Your task to perform on an android device: turn smart compose on in the gmail app Image 0: 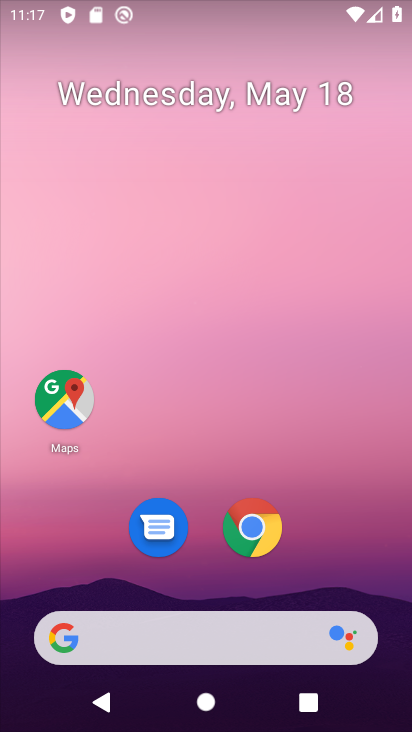
Step 0: drag from (188, 479) to (245, 93)
Your task to perform on an android device: turn smart compose on in the gmail app Image 1: 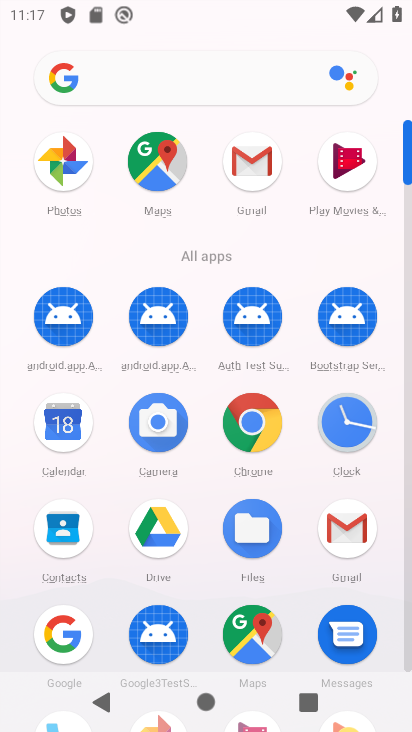
Step 1: click (235, 168)
Your task to perform on an android device: turn smart compose on in the gmail app Image 2: 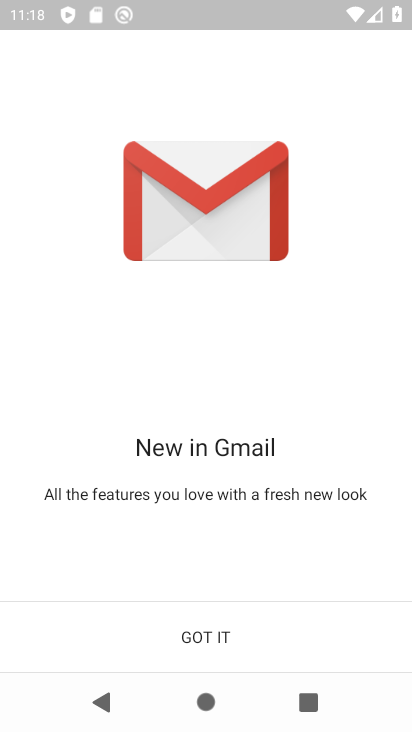
Step 2: click (191, 658)
Your task to perform on an android device: turn smart compose on in the gmail app Image 3: 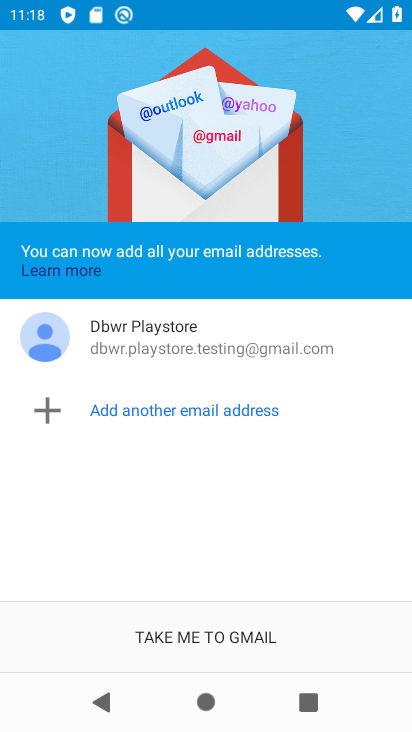
Step 3: click (199, 621)
Your task to perform on an android device: turn smart compose on in the gmail app Image 4: 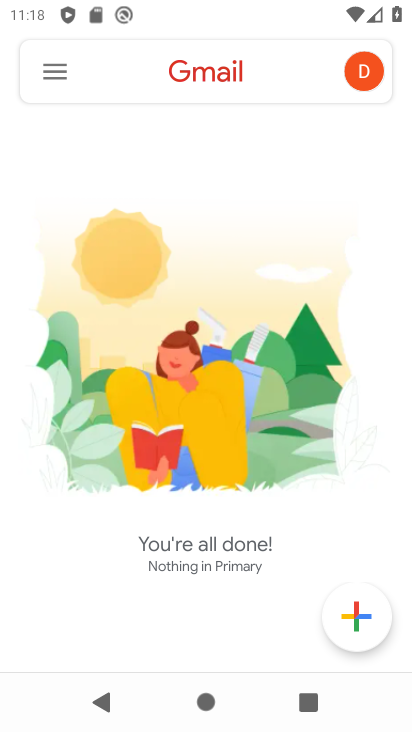
Step 4: click (46, 71)
Your task to perform on an android device: turn smart compose on in the gmail app Image 5: 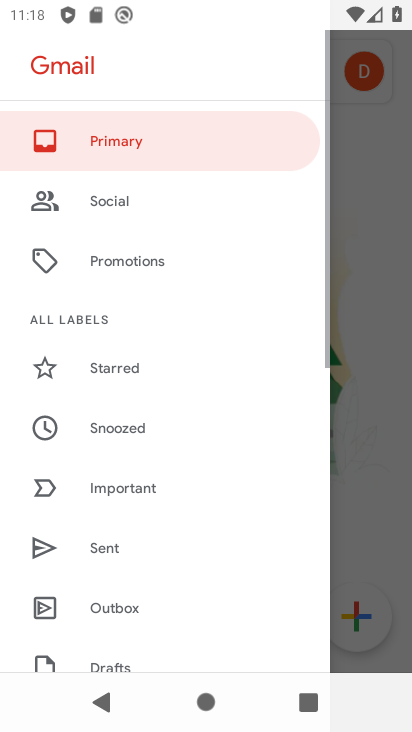
Step 5: drag from (131, 602) to (283, 56)
Your task to perform on an android device: turn smart compose on in the gmail app Image 6: 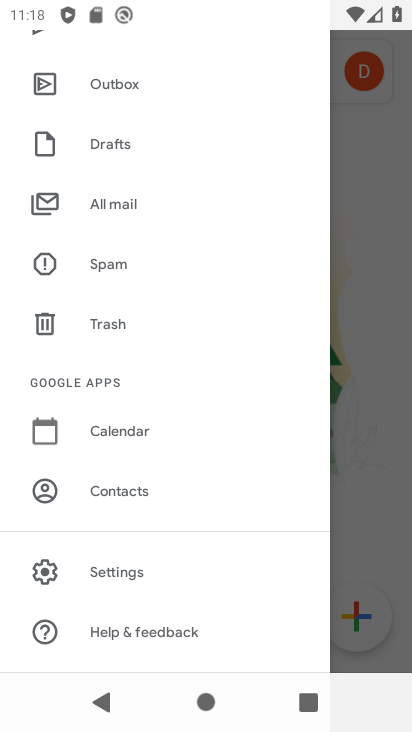
Step 6: click (132, 574)
Your task to perform on an android device: turn smart compose on in the gmail app Image 7: 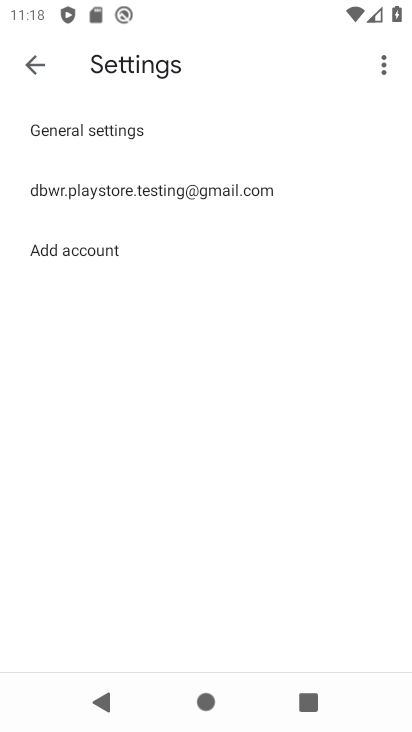
Step 7: click (176, 188)
Your task to perform on an android device: turn smart compose on in the gmail app Image 8: 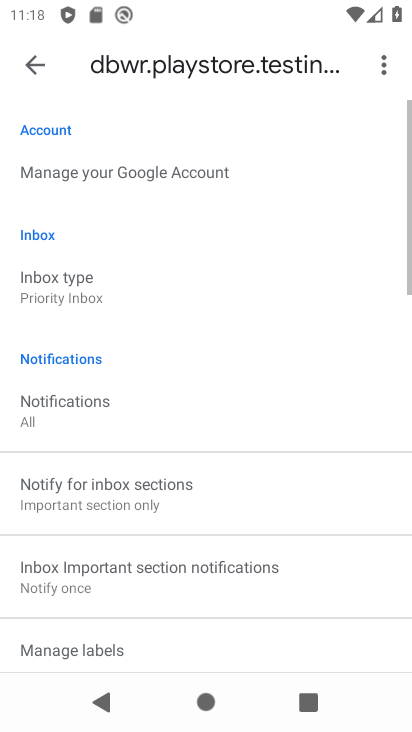
Step 8: task complete